Your task to perform on an android device: change timer sound Image 0: 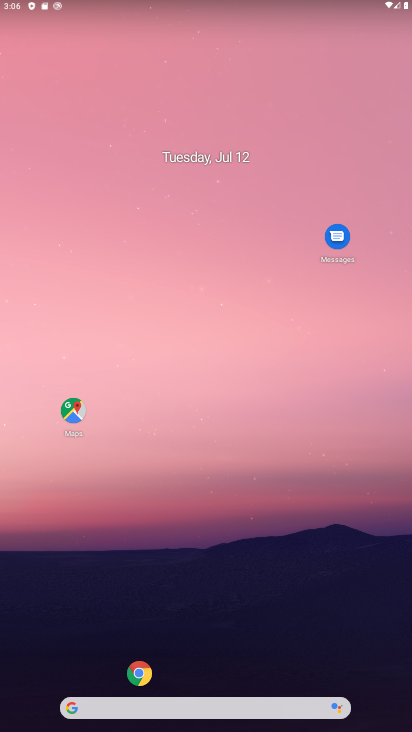
Step 0: drag from (238, 210) to (304, 59)
Your task to perform on an android device: change timer sound Image 1: 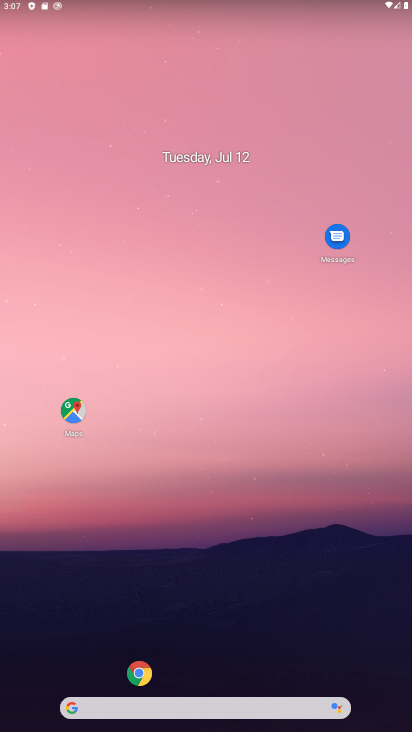
Step 1: drag from (16, 678) to (234, 72)
Your task to perform on an android device: change timer sound Image 2: 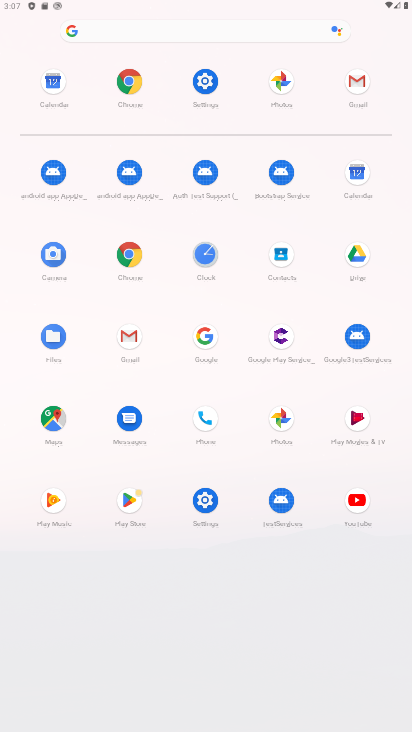
Step 2: click (213, 509)
Your task to perform on an android device: change timer sound Image 3: 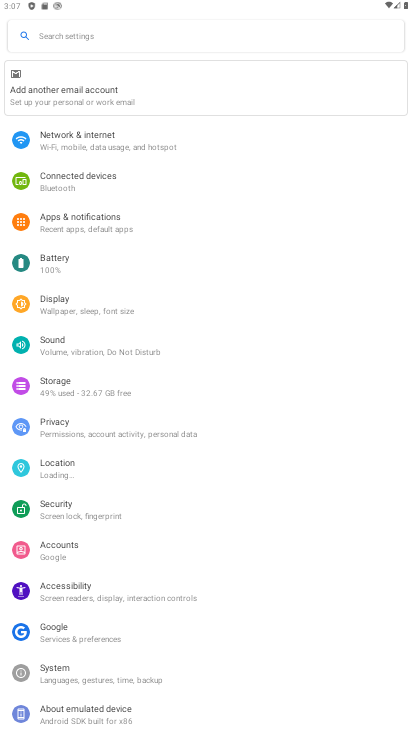
Step 3: click (59, 348)
Your task to perform on an android device: change timer sound Image 4: 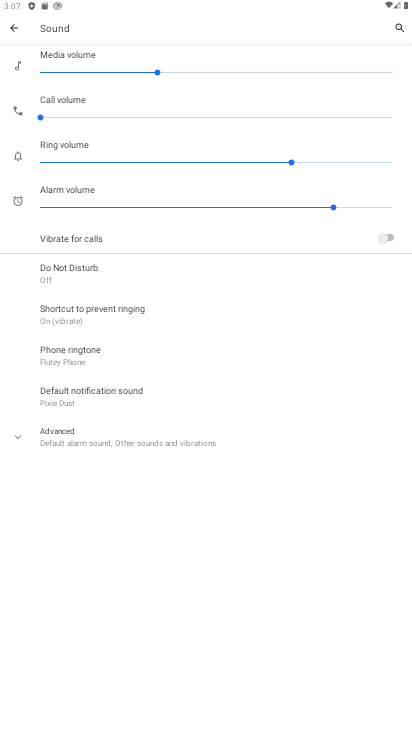
Step 4: task complete